Your task to perform on an android device: check android version Image 0: 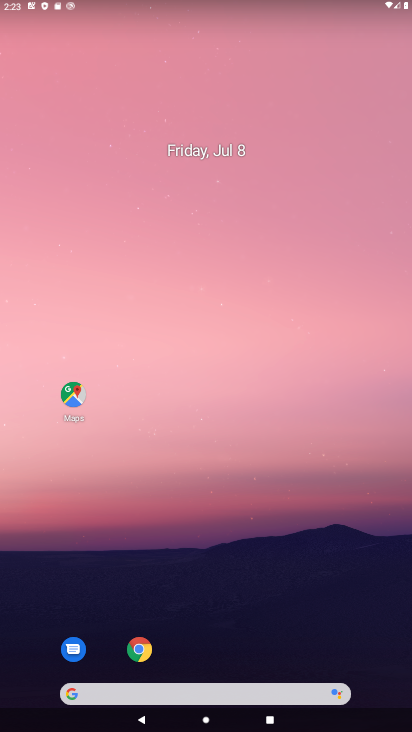
Step 0: drag from (355, 657) to (323, 117)
Your task to perform on an android device: check android version Image 1: 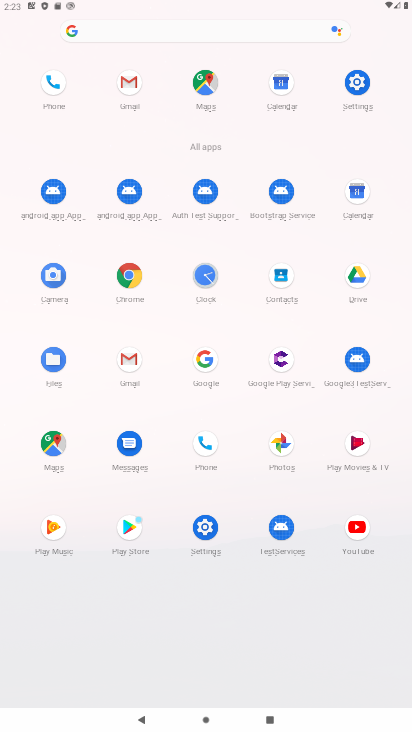
Step 1: click (206, 525)
Your task to perform on an android device: check android version Image 2: 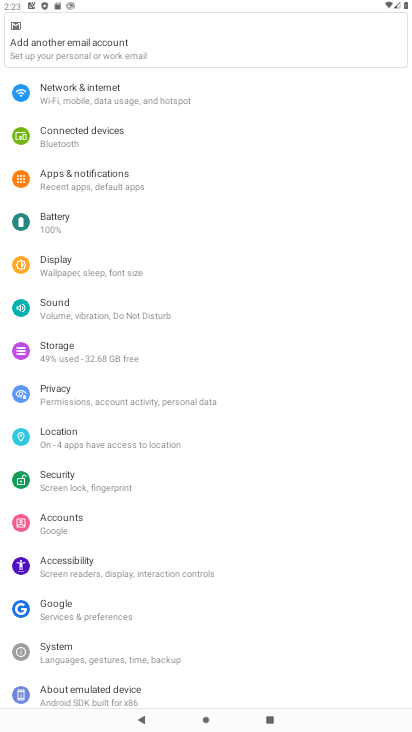
Step 2: drag from (270, 658) to (255, 272)
Your task to perform on an android device: check android version Image 3: 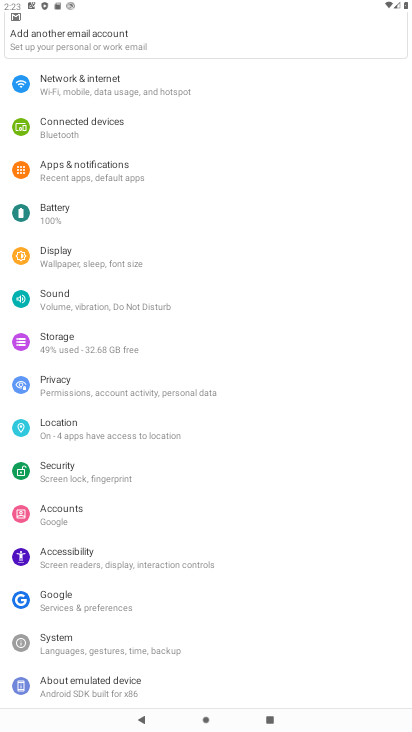
Step 3: click (79, 688)
Your task to perform on an android device: check android version Image 4: 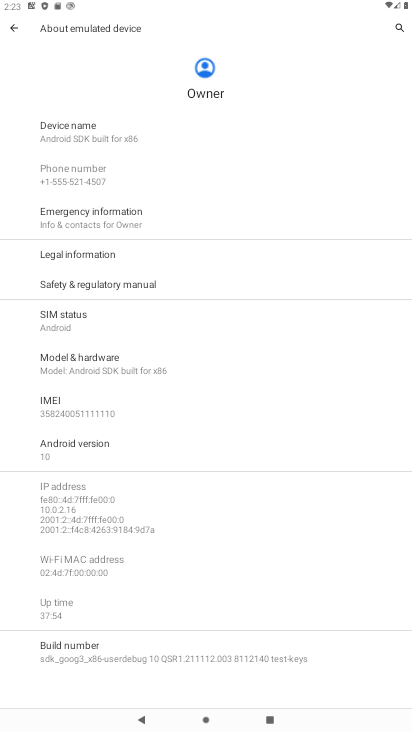
Step 4: click (63, 455)
Your task to perform on an android device: check android version Image 5: 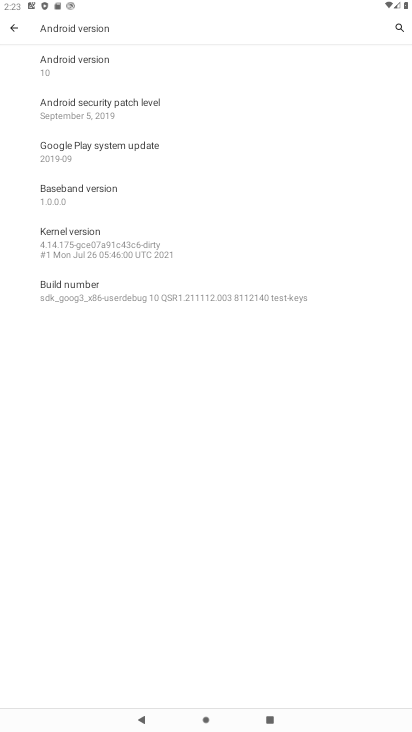
Step 5: task complete